Your task to perform on an android device: turn pop-ups on in chrome Image 0: 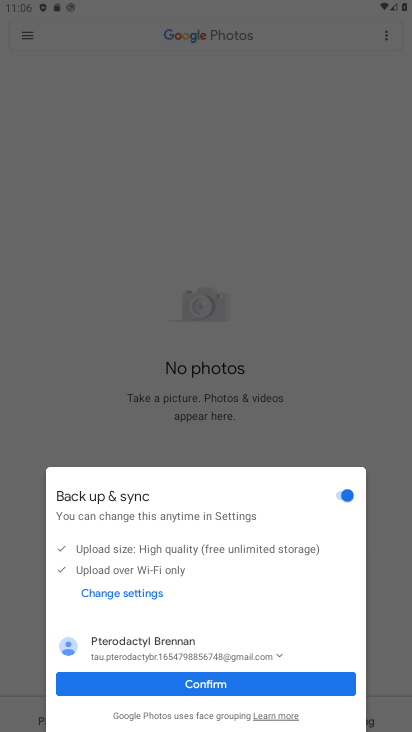
Step 0: press home button
Your task to perform on an android device: turn pop-ups on in chrome Image 1: 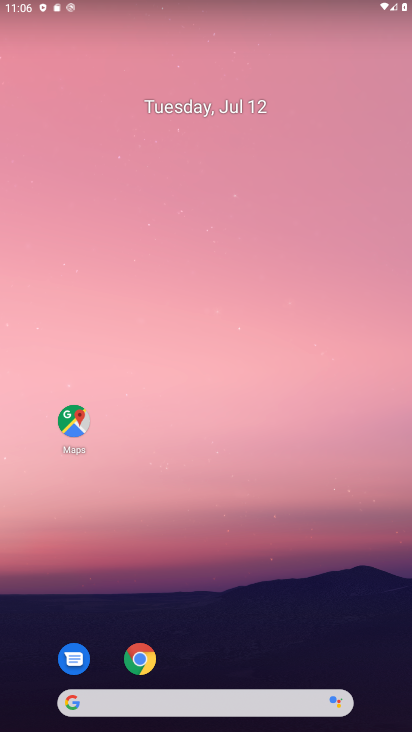
Step 1: drag from (225, 669) to (224, 2)
Your task to perform on an android device: turn pop-ups on in chrome Image 2: 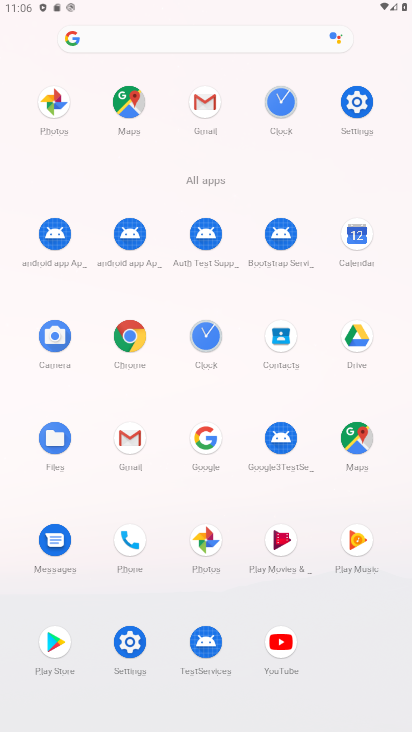
Step 2: click (137, 340)
Your task to perform on an android device: turn pop-ups on in chrome Image 3: 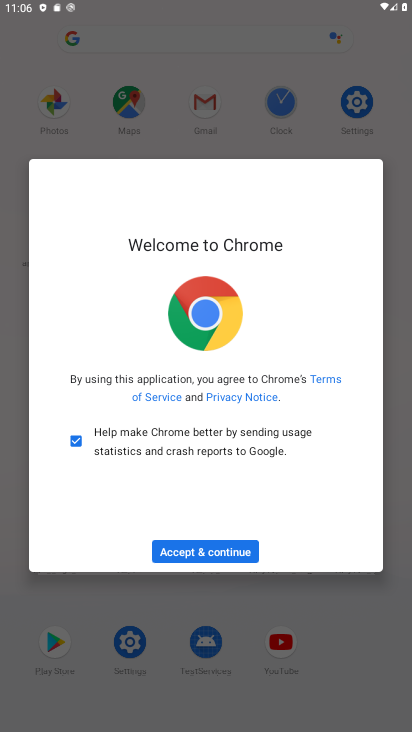
Step 3: click (240, 550)
Your task to perform on an android device: turn pop-ups on in chrome Image 4: 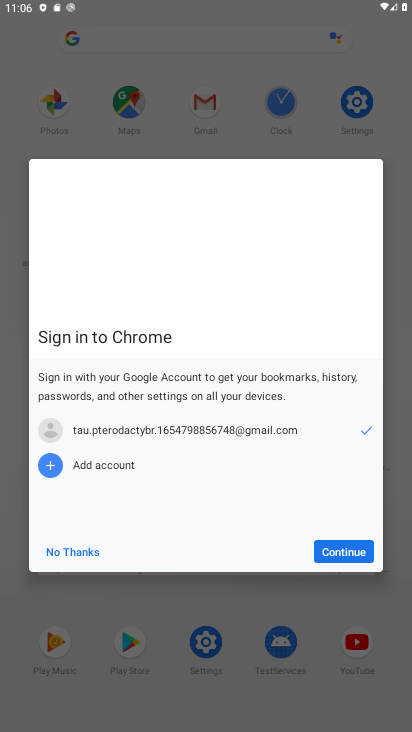
Step 4: click (337, 559)
Your task to perform on an android device: turn pop-ups on in chrome Image 5: 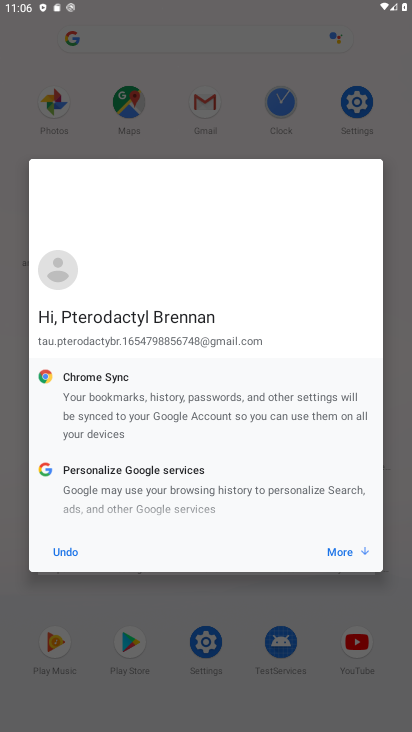
Step 5: click (337, 559)
Your task to perform on an android device: turn pop-ups on in chrome Image 6: 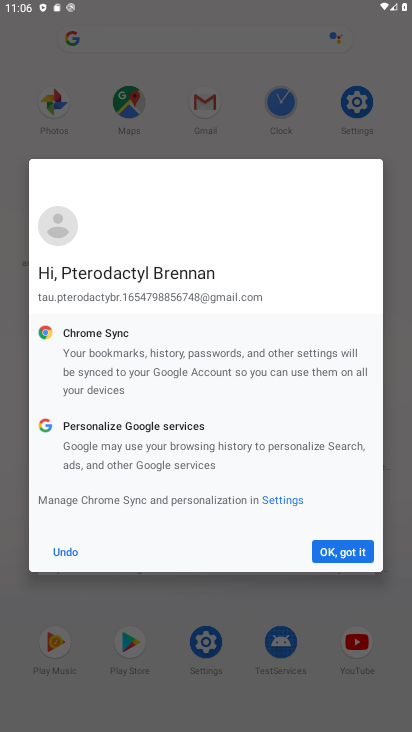
Step 6: click (356, 556)
Your task to perform on an android device: turn pop-ups on in chrome Image 7: 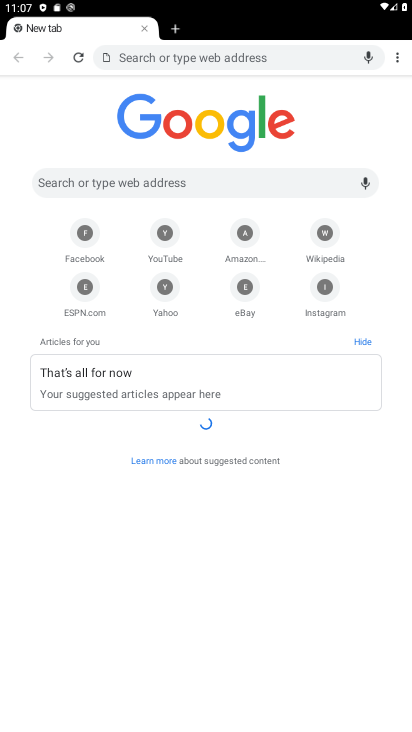
Step 7: click (397, 63)
Your task to perform on an android device: turn pop-ups on in chrome Image 8: 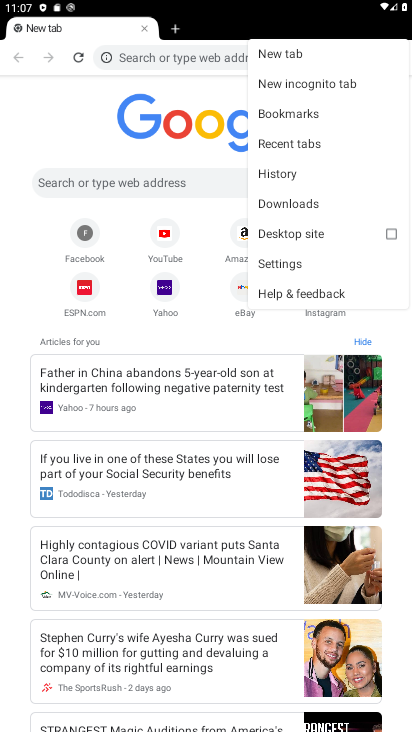
Step 8: click (317, 268)
Your task to perform on an android device: turn pop-ups on in chrome Image 9: 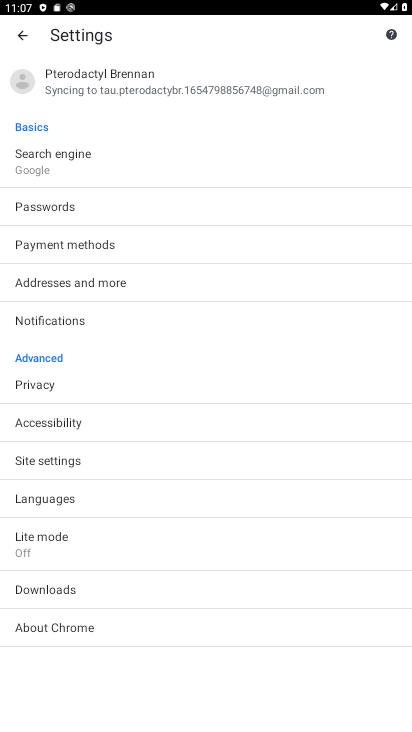
Step 9: click (214, 467)
Your task to perform on an android device: turn pop-ups on in chrome Image 10: 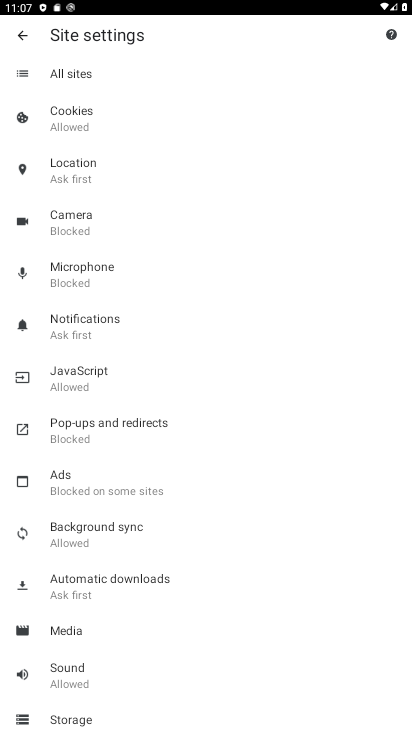
Step 10: click (125, 435)
Your task to perform on an android device: turn pop-ups on in chrome Image 11: 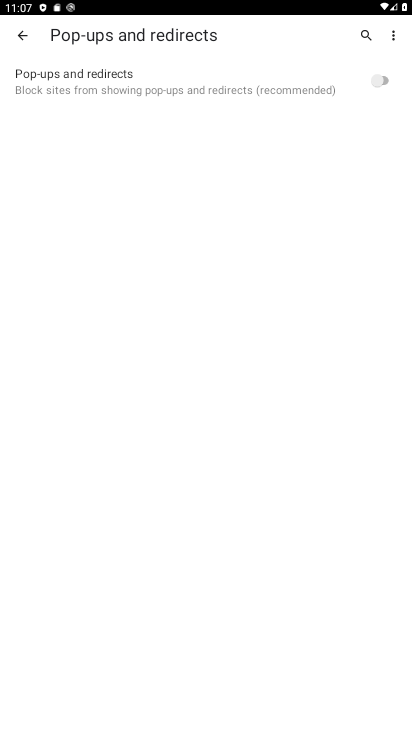
Step 11: click (383, 87)
Your task to perform on an android device: turn pop-ups on in chrome Image 12: 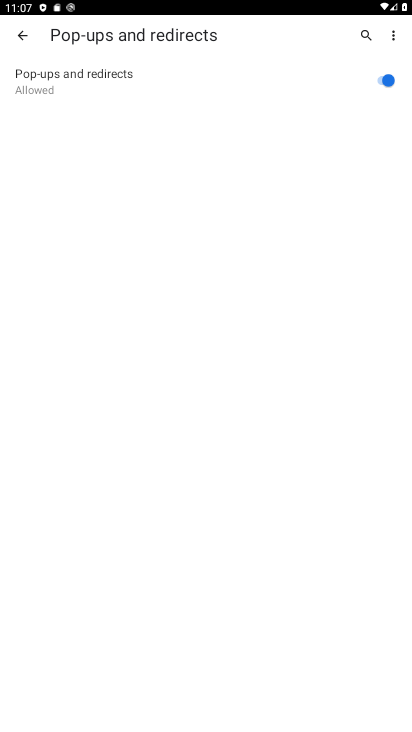
Step 12: task complete